Your task to perform on an android device: Open my contact list Image 0: 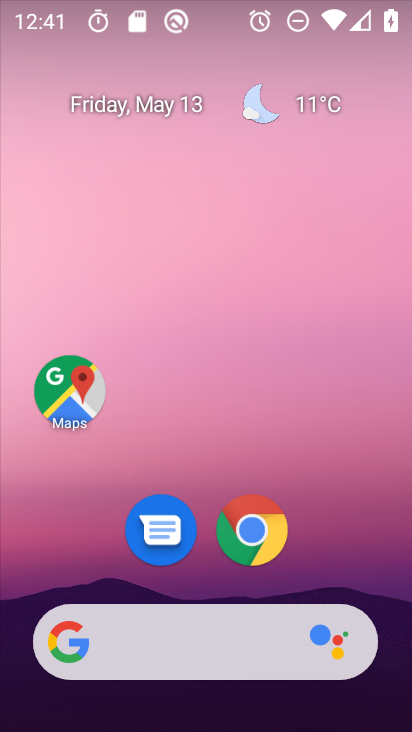
Step 0: press home button
Your task to perform on an android device: Open my contact list Image 1: 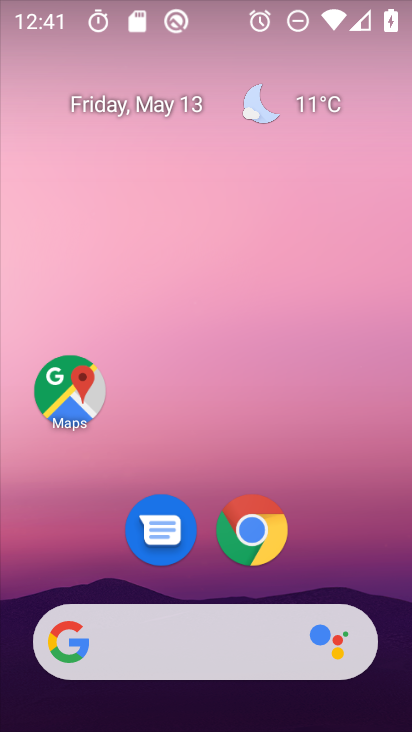
Step 1: drag from (197, 654) to (290, 142)
Your task to perform on an android device: Open my contact list Image 2: 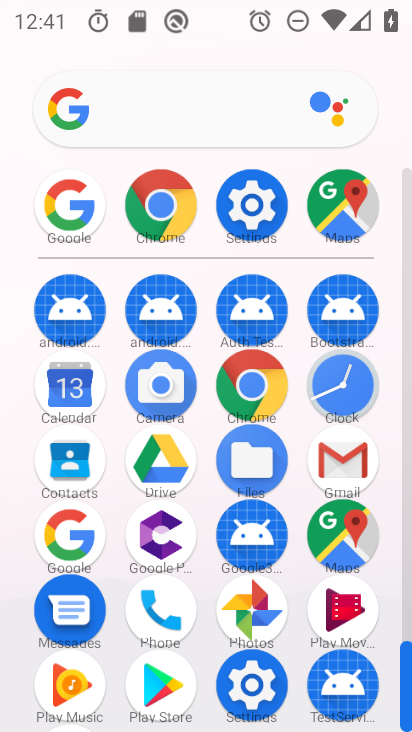
Step 2: click (60, 476)
Your task to perform on an android device: Open my contact list Image 3: 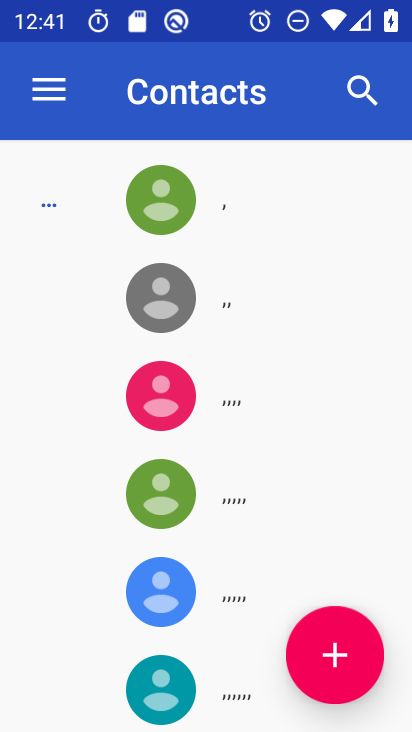
Step 3: task complete